Your task to perform on an android device: Clear the cart on walmart.com. Add "alienware aurora" to the cart on walmart.com, then select checkout. Image 0: 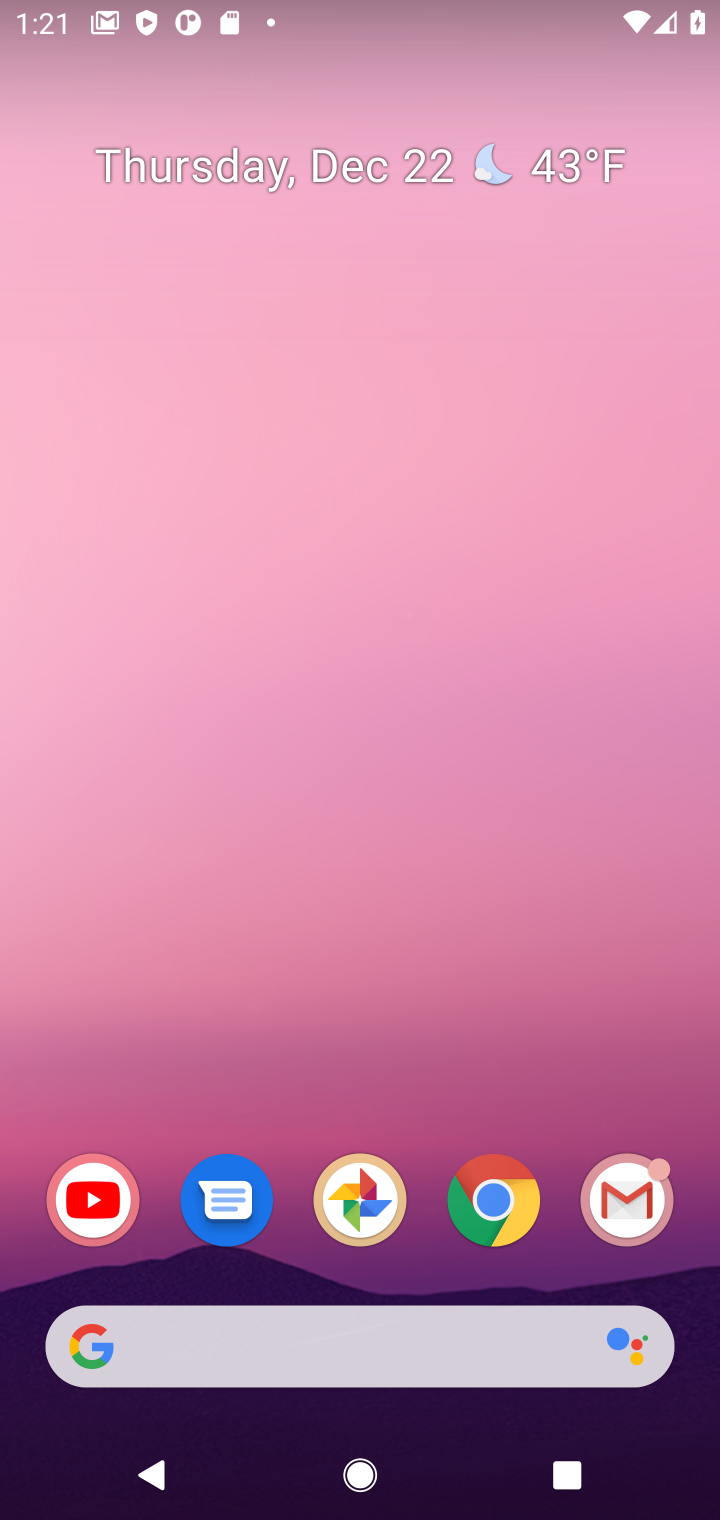
Step 0: click (499, 1216)
Your task to perform on an android device: Clear the cart on walmart.com. Add "alienware aurora" to the cart on walmart.com, then select checkout. Image 1: 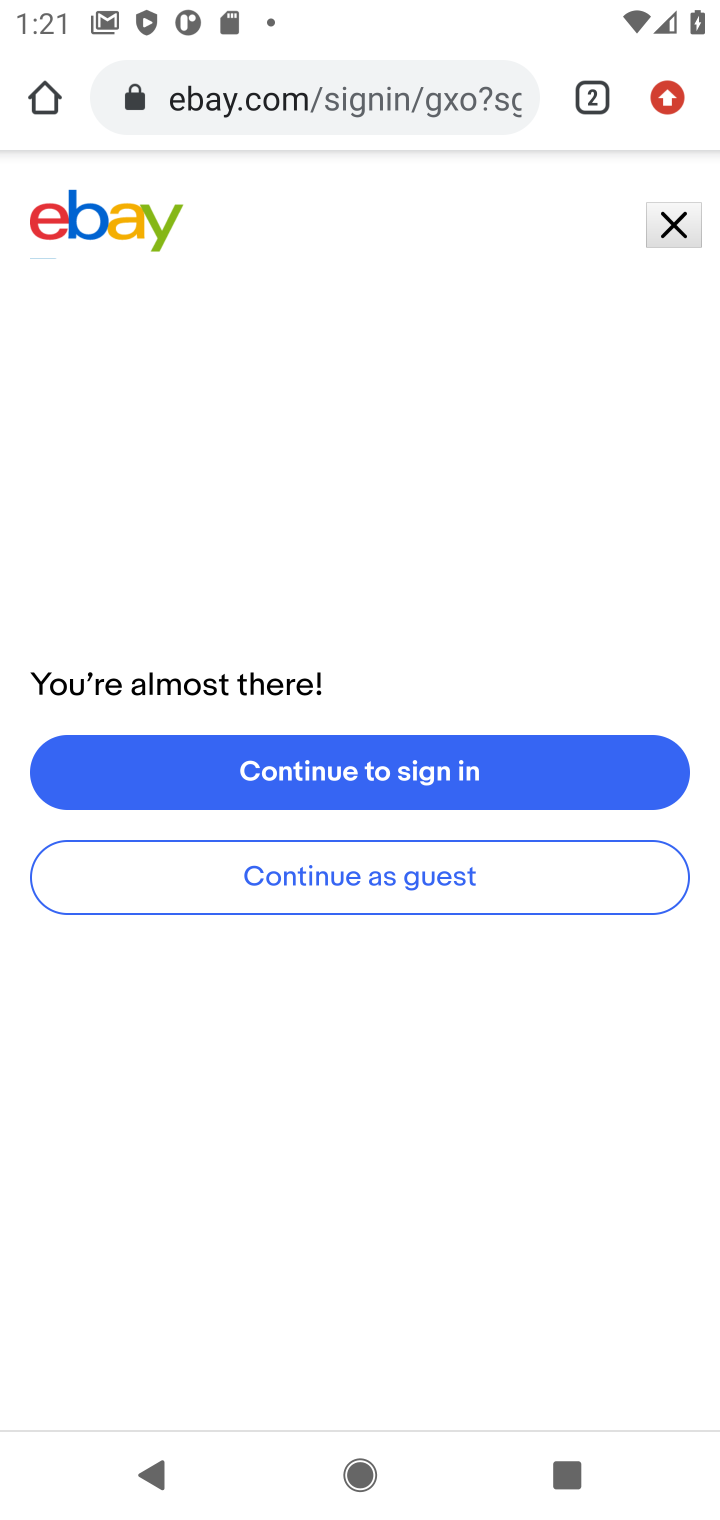
Step 1: click (243, 97)
Your task to perform on an android device: Clear the cart on walmart.com. Add "alienware aurora" to the cart on walmart.com, then select checkout. Image 2: 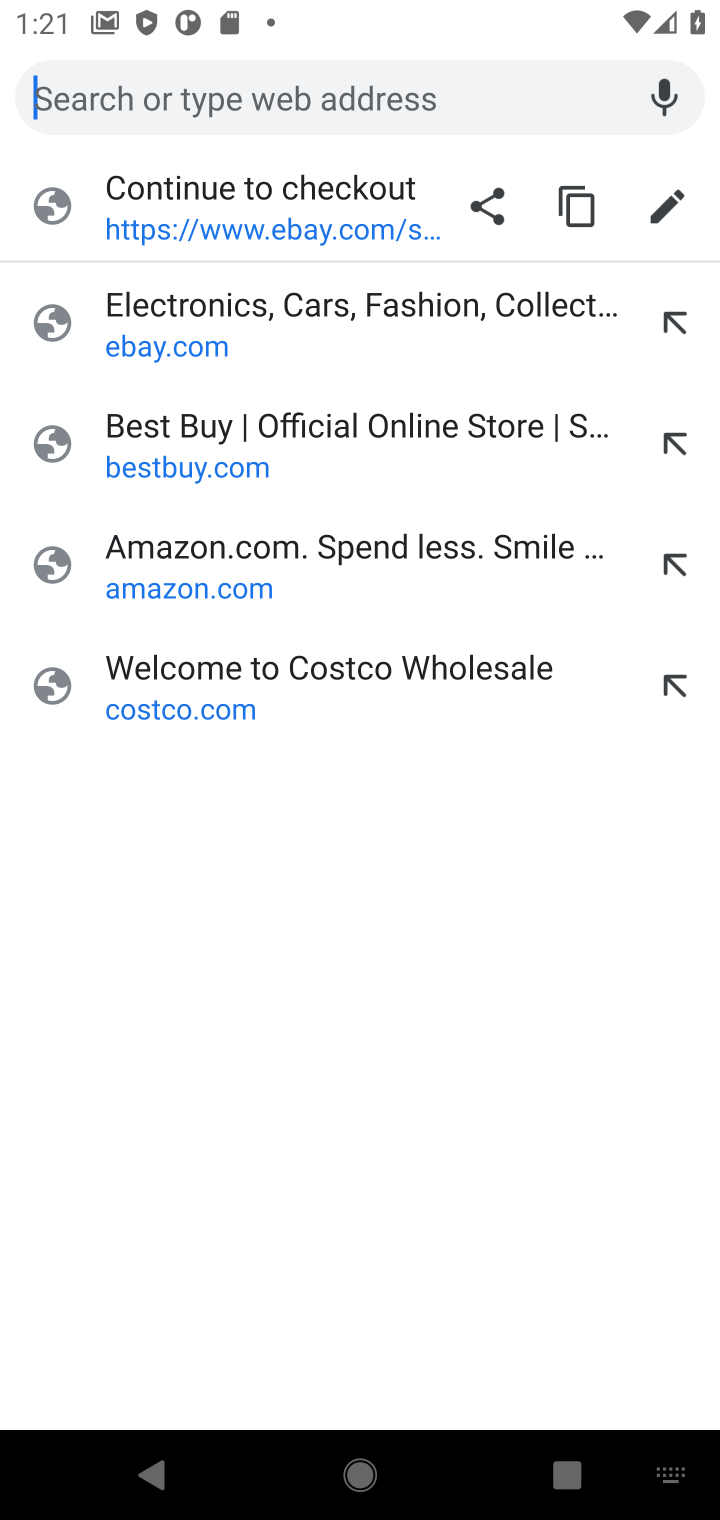
Step 2: type "walmart.com"
Your task to perform on an android device: Clear the cart on walmart.com. Add "alienware aurora" to the cart on walmart.com, then select checkout. Image 3: 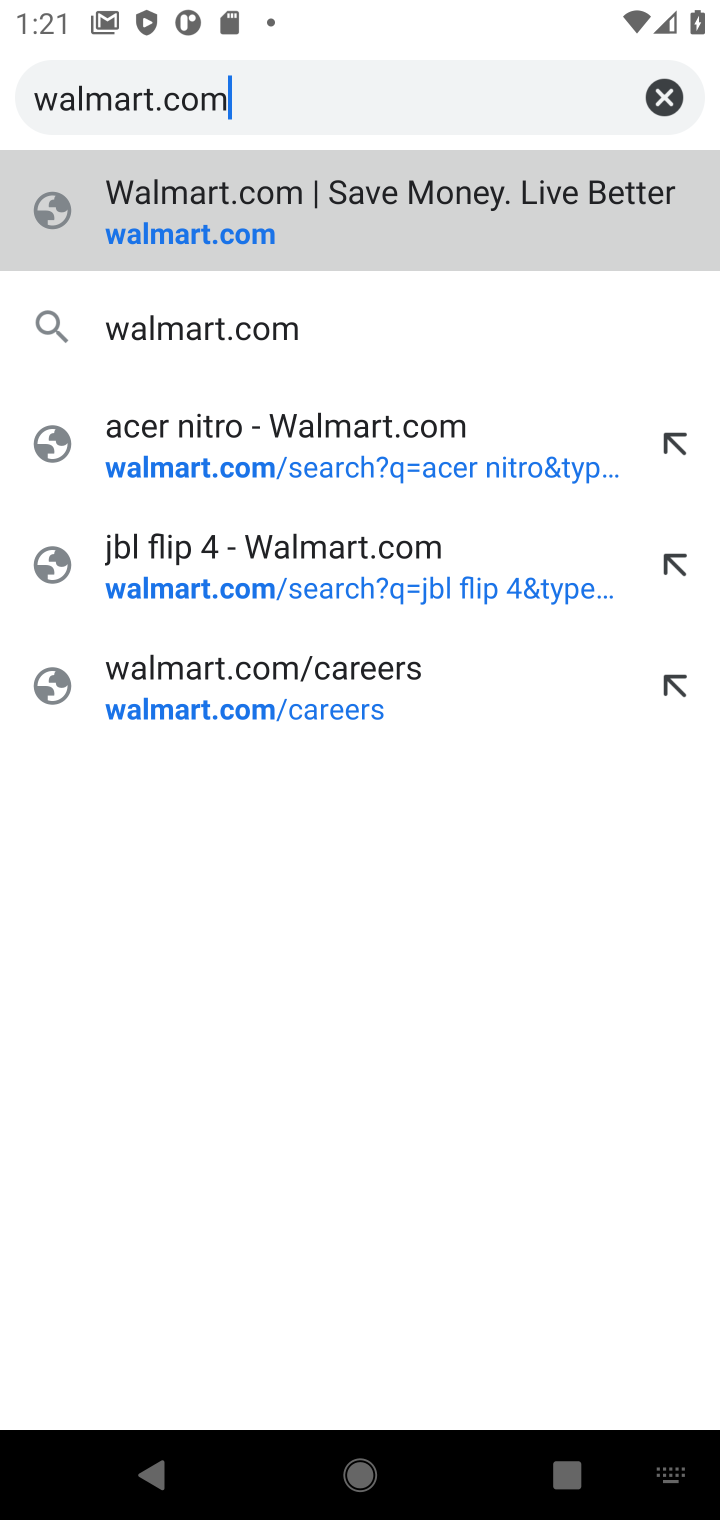
Step 3: click (171, 237)
Your task to perform on an android device: Clear the cart on walmart.com. Add "alienware aurora" to the cart on walmart.com, then select checkout. Image 4: 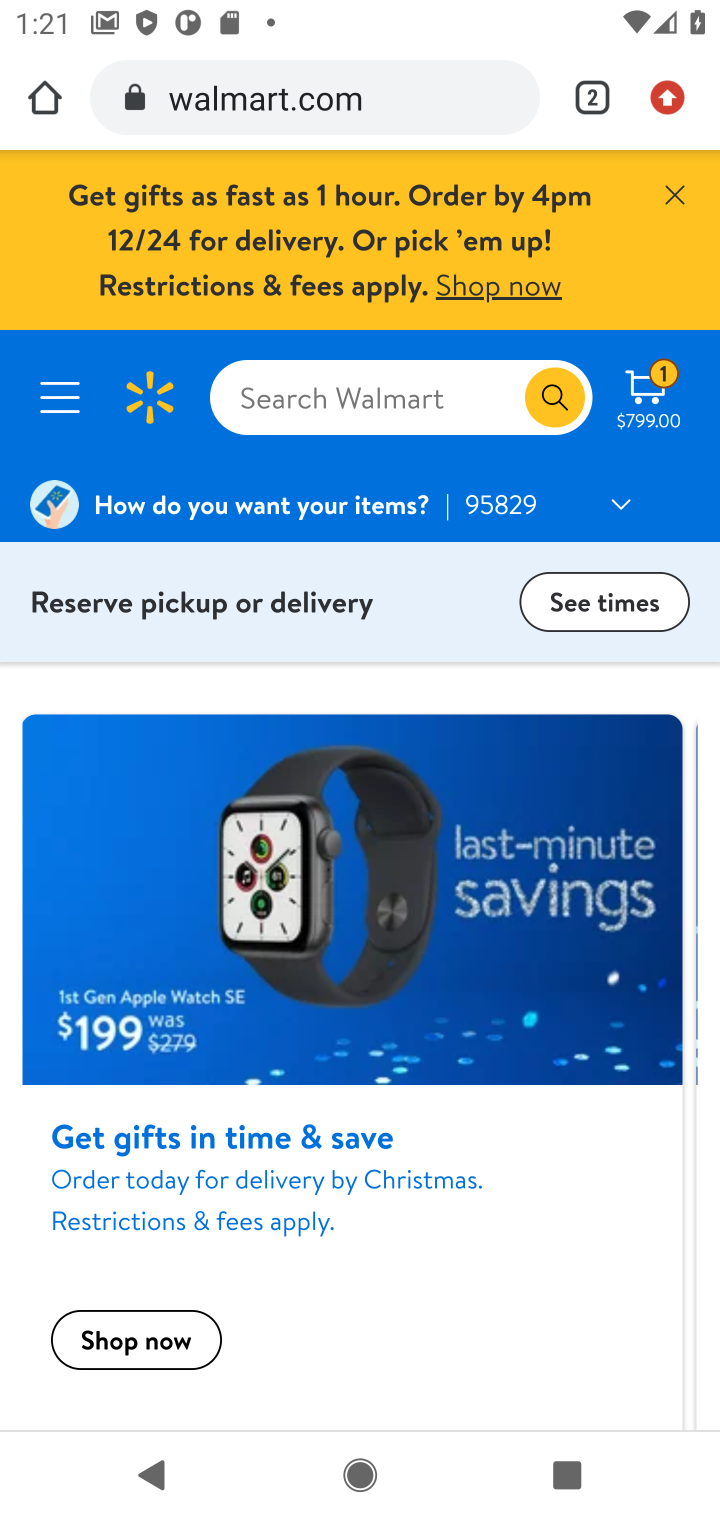
Step 4: click (641, 404)
Your task to perform on an android device: Clear the cart on walmart.com. Add "alienware aurora" to the cart on walmart.com, then select checkout. Image 5: 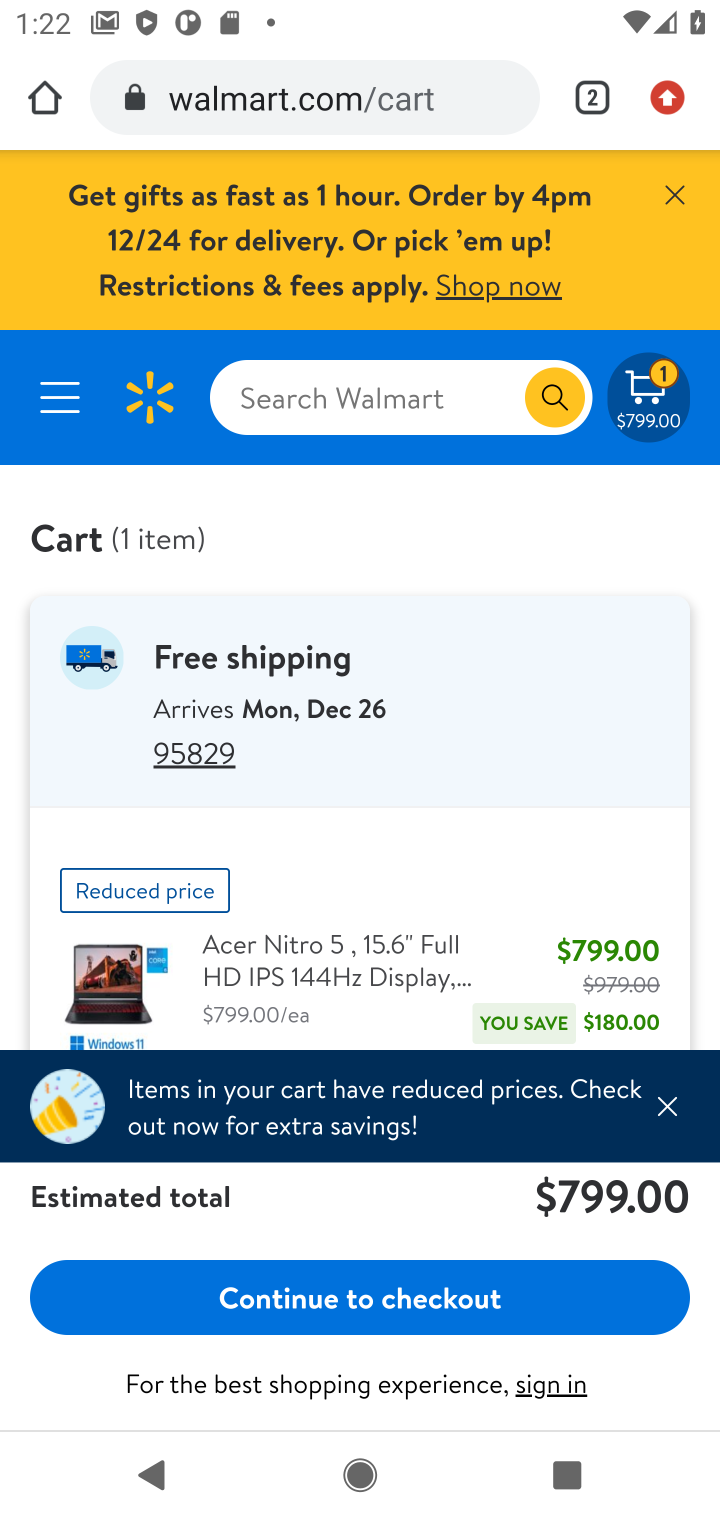
Step 5: drag from (324, 908) to (333, 403)
Your task to perform on an android device: Clear the cart on walmart.com. Add "alienware aurora" to the cart on walmart.com, then select checkout. Image 6: 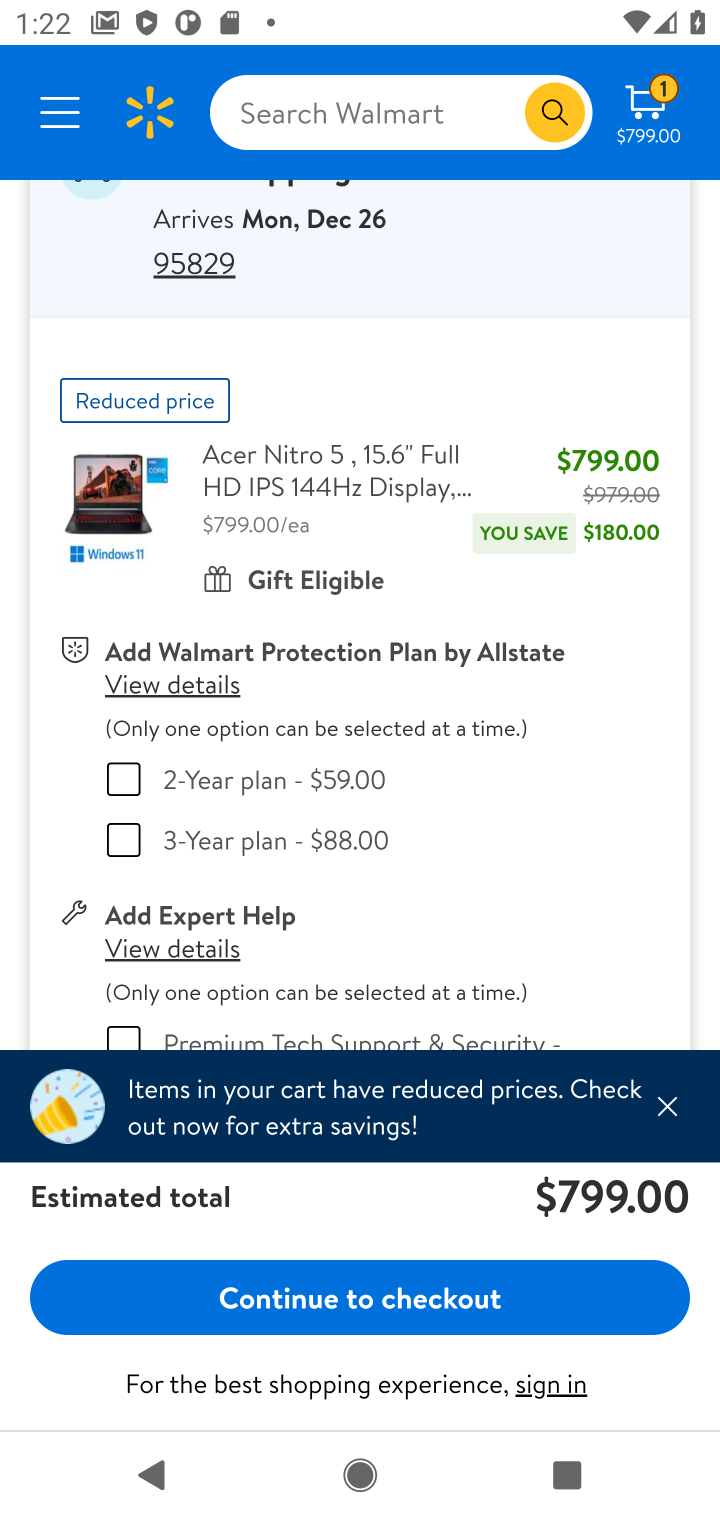
Step 6: drag from (323, 613) to (323, 316)
Your task to perform on an android device: Clear the cart on walmart.com. Add "alienware aurora" to the cart on walmart.com, then select checkout. Image 7: 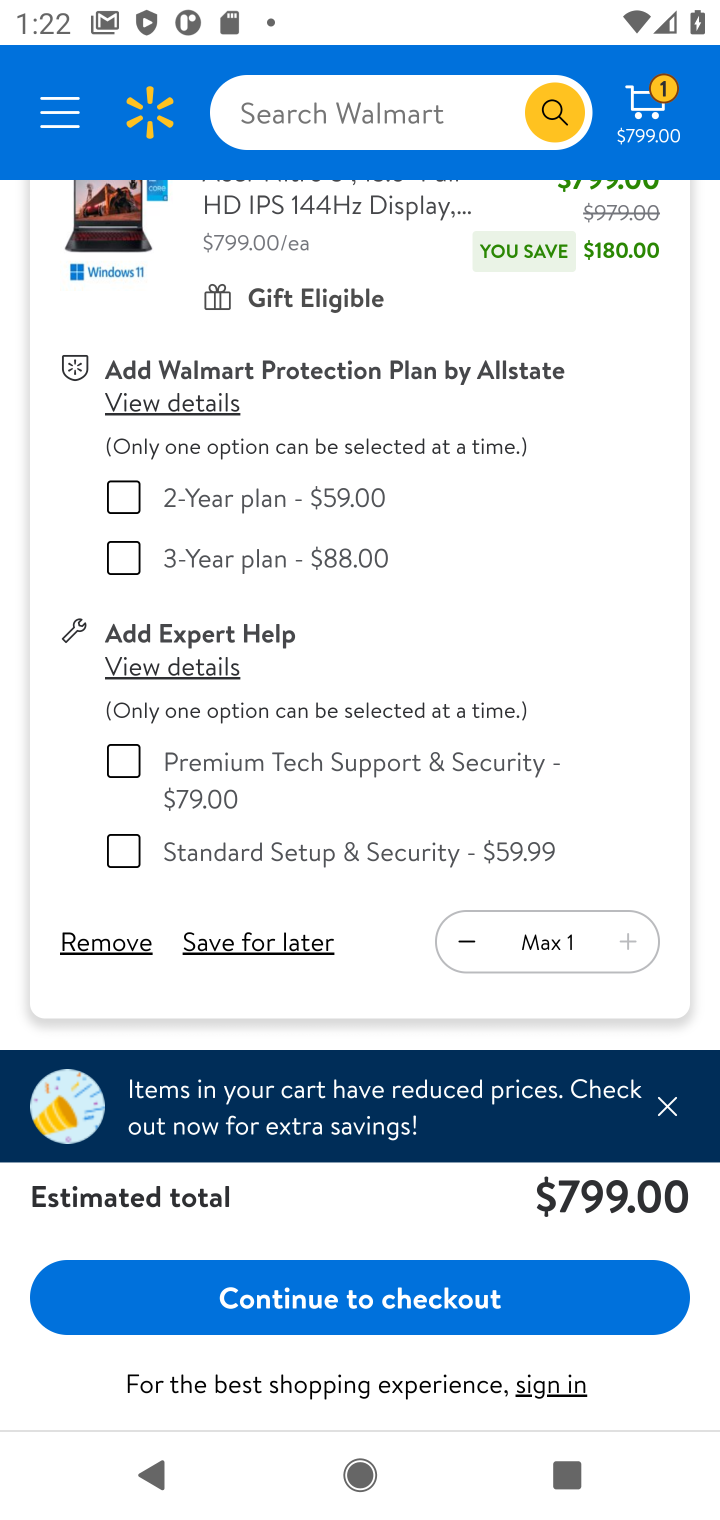
Step 7: click (91, 949)
Your task to perform on an android device: Clear the cart on walmart.com. Add "alienware aurora" to the cart on walmart.com, then select checkout. Image 8: 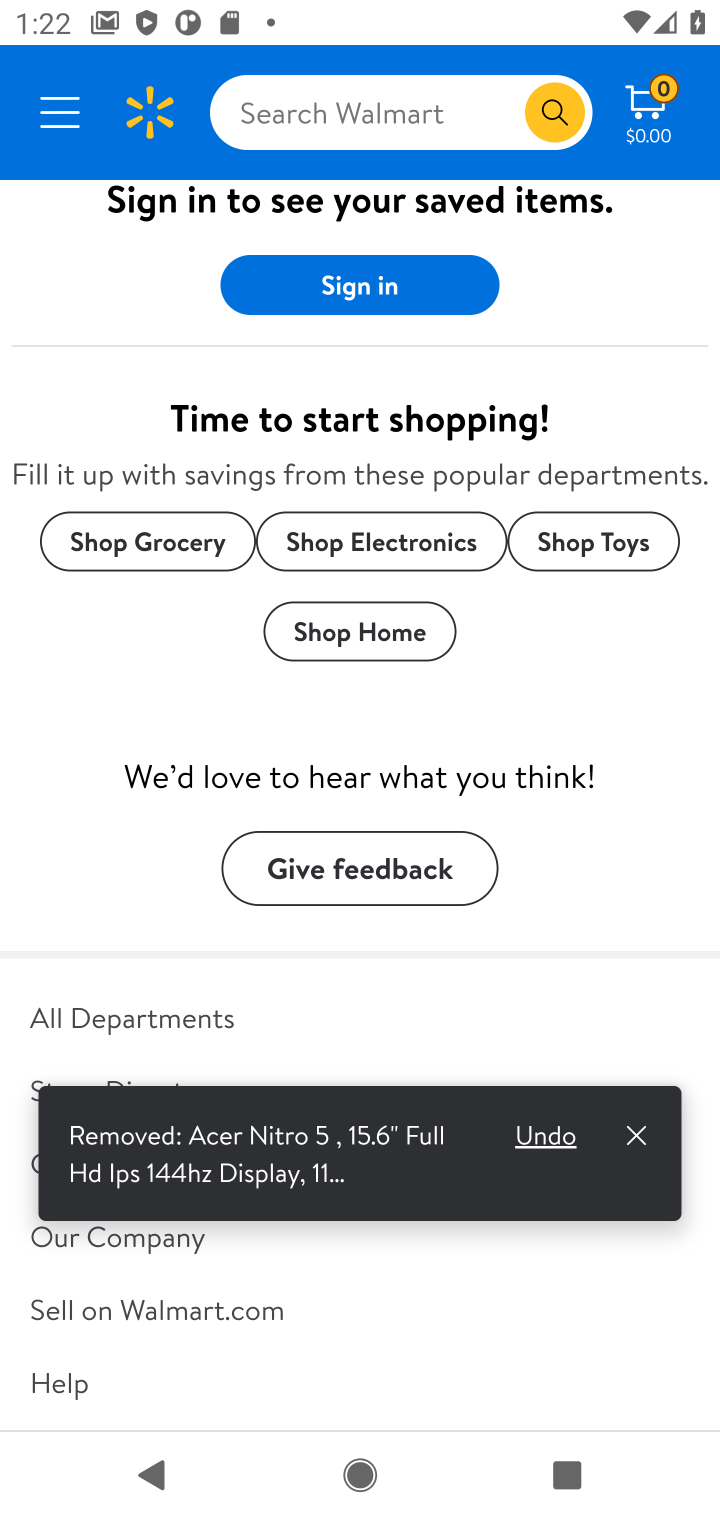
Step 8: drag from (343, 454) to (311, 964)
Your task to perform on an android device: Clear the cart on walmart.com. Add "alienware aurora" to the cart on walmart.com, then select checkout. Image 9: 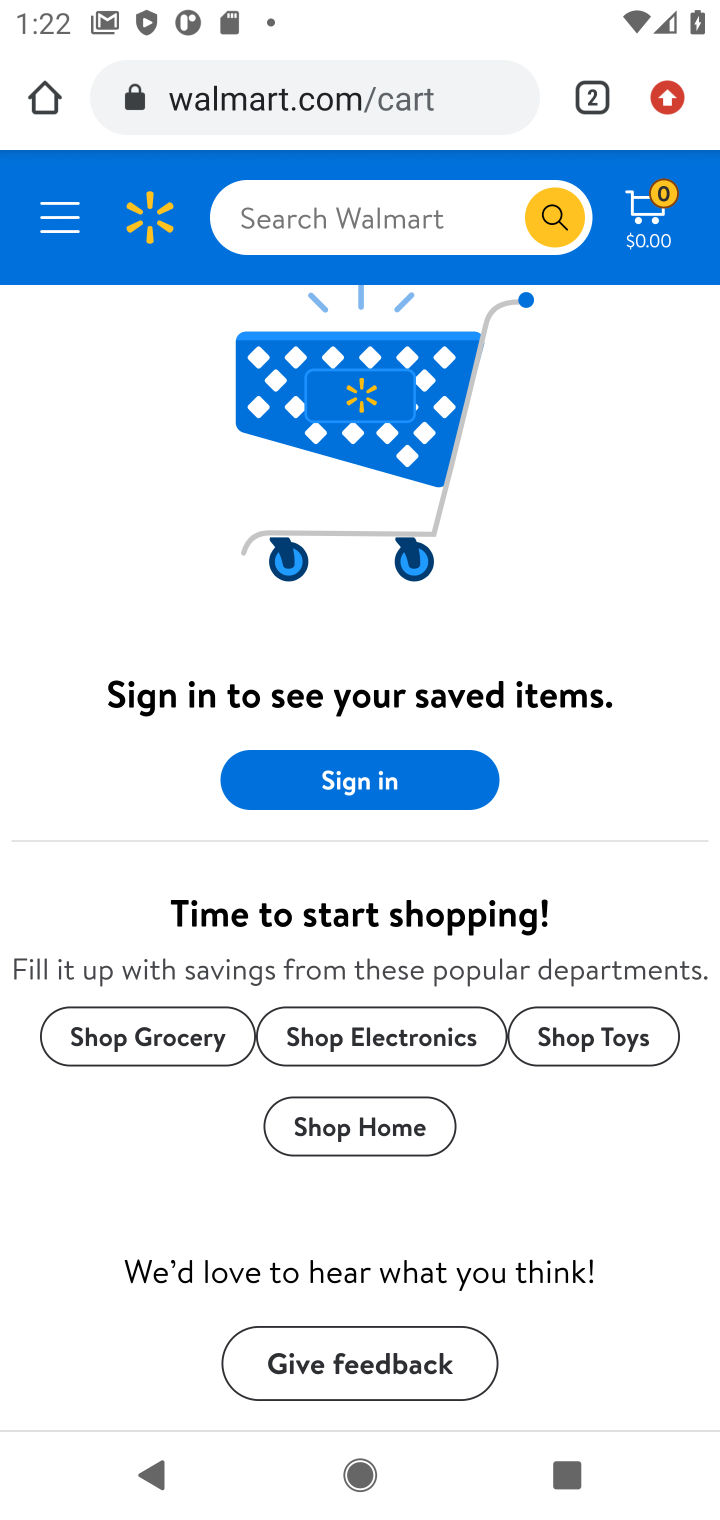
Step 9: click (291, 218)
Your task to perform on an android device: Clear the cart on walmart.com. Add "alienware aurora" to the cart on walmart.com, then select checkout. Image 10: 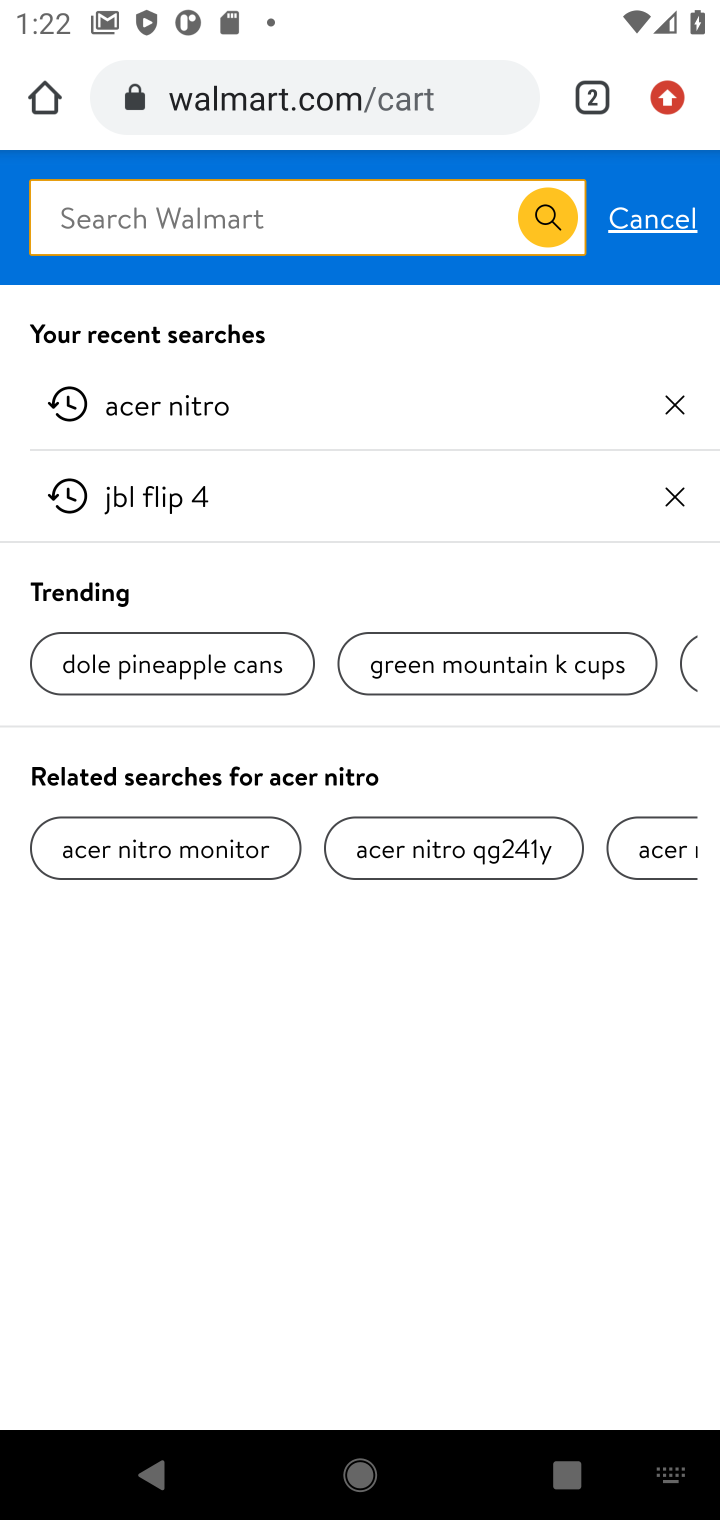
Step 10: type "alienware aurora"
Your task to perform on an android device: Clear the cart on walmart.com. Add "alienware aurora" to the cart on walmart.com, then select checkout. Image 11: 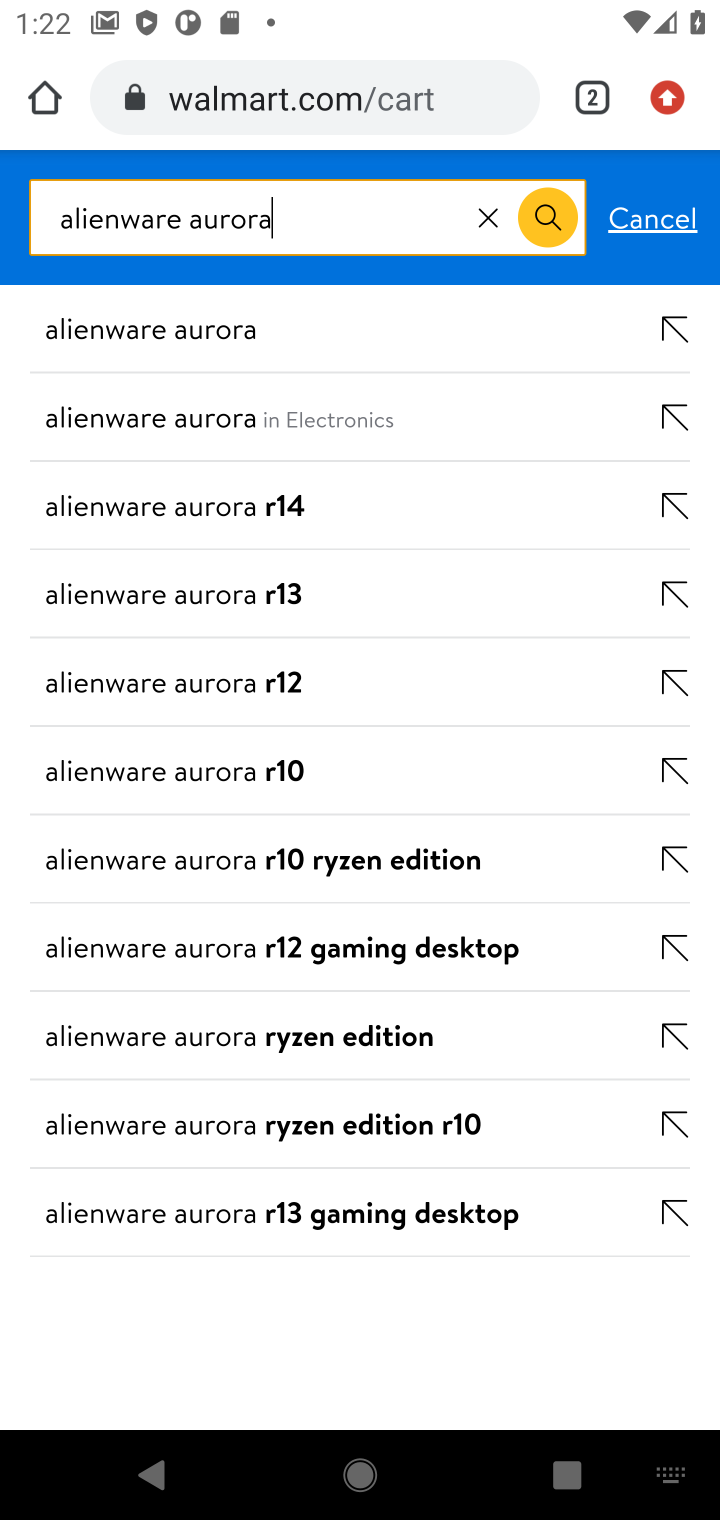
Step 11: click (153, 346)
Your task to perform on an android device: Clear the cart on walmart.com. Add "alienware aurora" to the cart on walmart.com, then select checkout. Image 12: 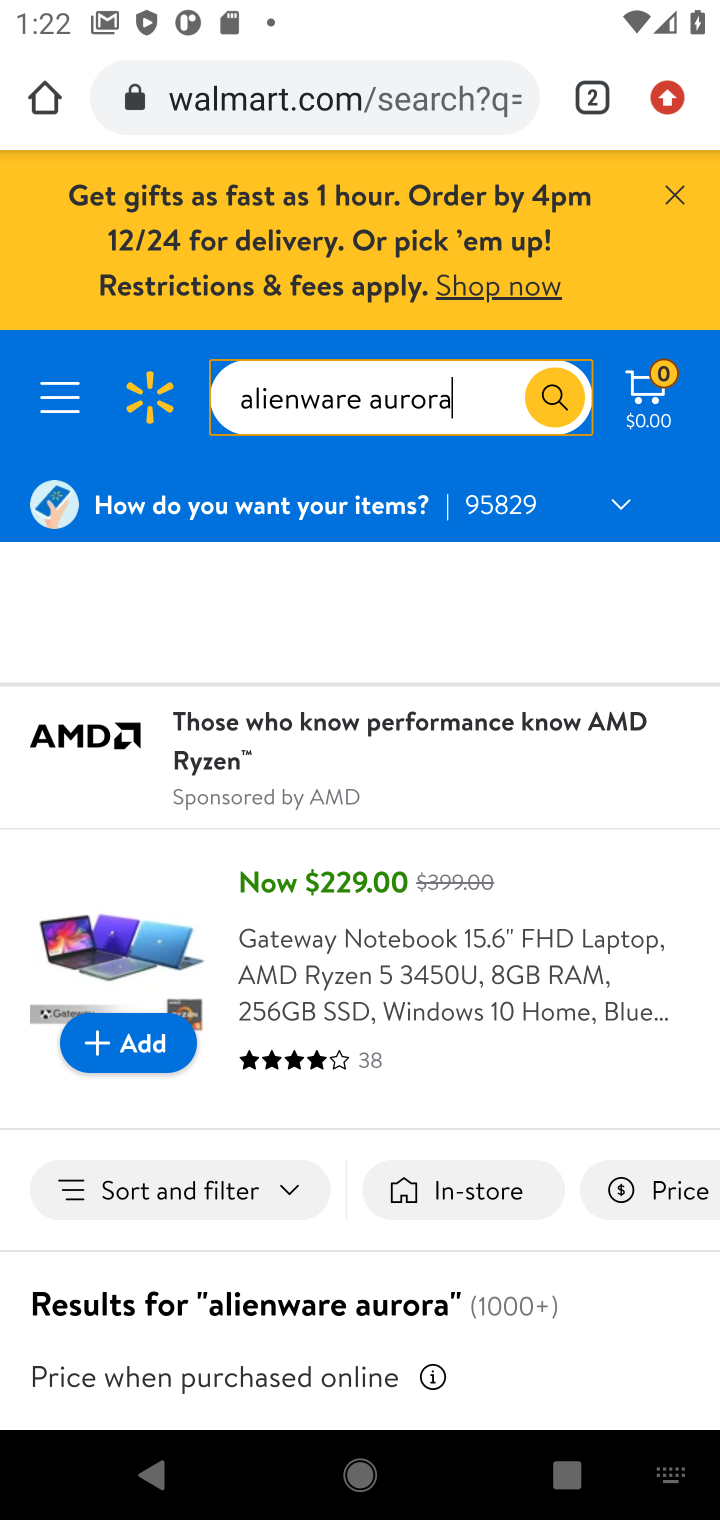
Step 12: drag from (295, 1062) to (294, 635)
Your task to perform on an android device: Clear the cart on walmart.com. Add "alienware aurora" to the cart on walmart.com, then select checkout. Image 13: 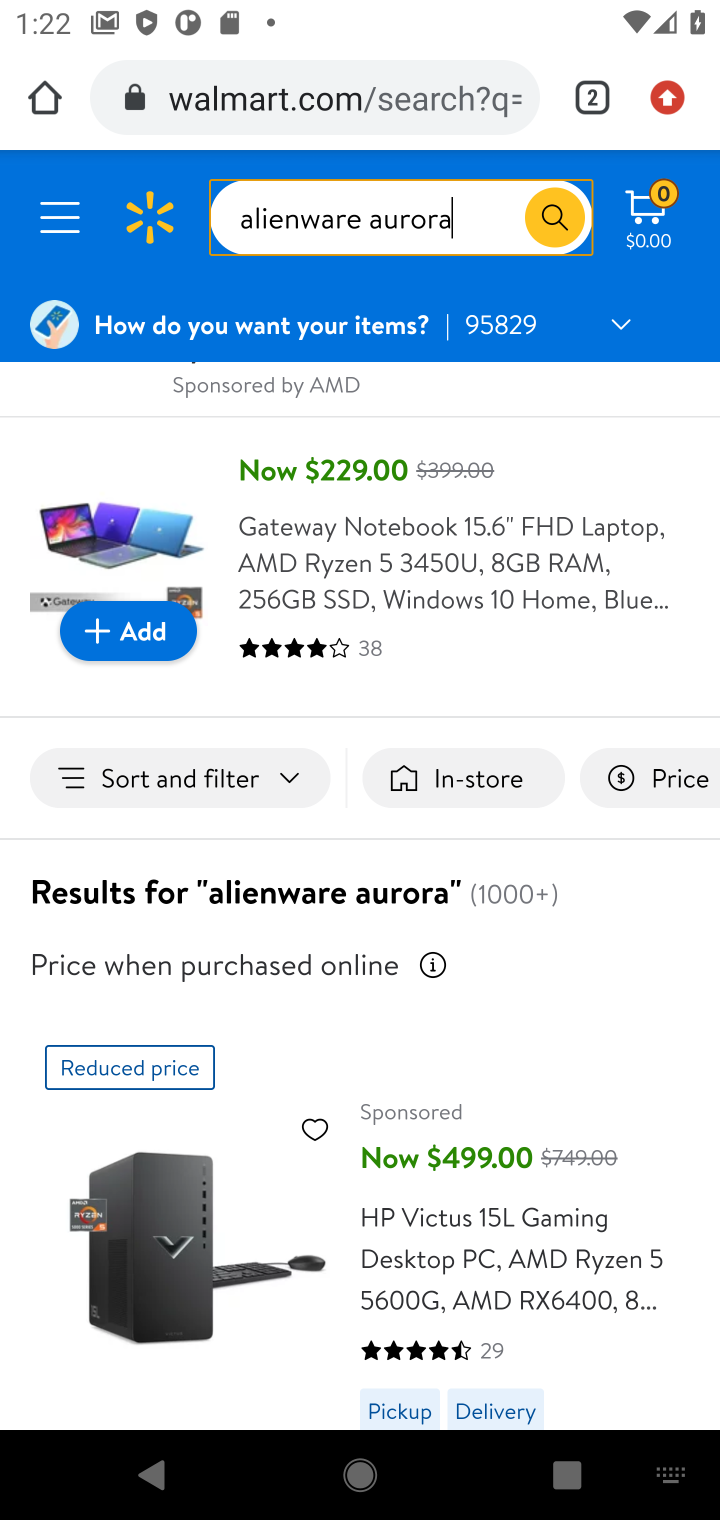
Step 13: drag from (239, 1042) to (273, 565)
Your task to perform on an android device: Clear the cart on walmart.com. Add "alienware aurora" to the cart on walmart.com, then select checkout. Image 14: 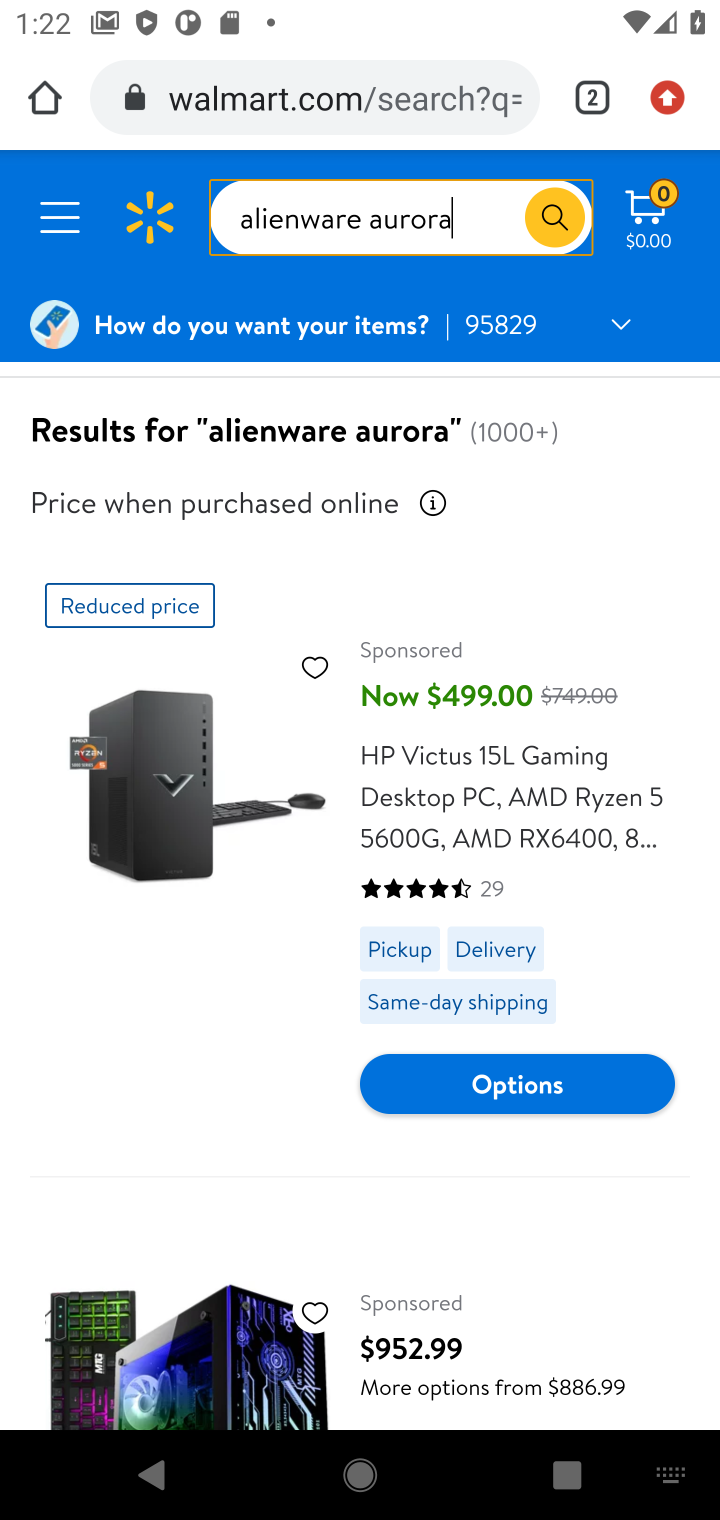
Step 14: drag from (296, 1009) to (298, 523)
Your task to perform on an android device: Clear the cart on walmart.com. Add "alienware aurora" to the cart on walmart.com, then select checkout. Image 15: 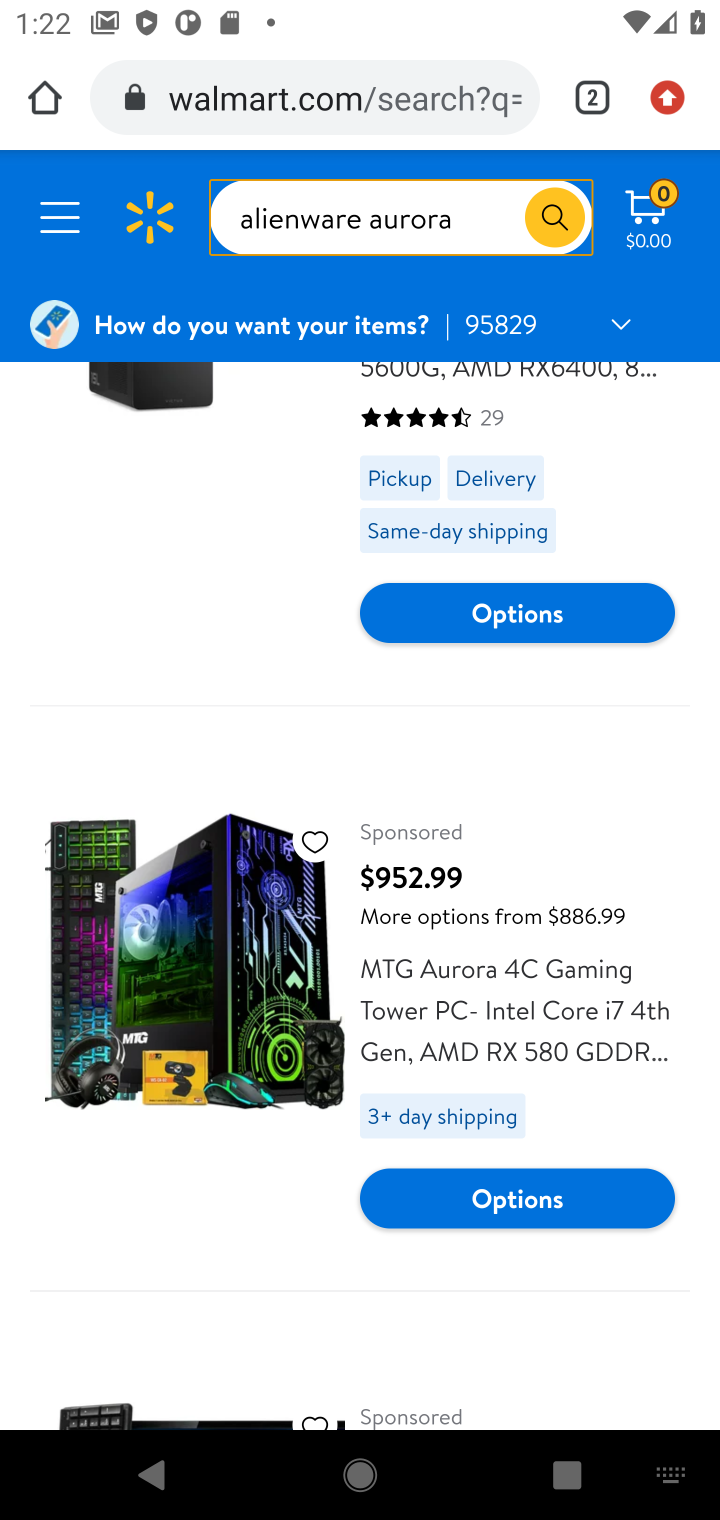
Step 15: drag from (284, 971) to (304, 570)
Your task to perform on an android device: Clear the cart on walmart.com. Add "alienware aurora" to the cart on walmart.com, then select checkout. Image 16: 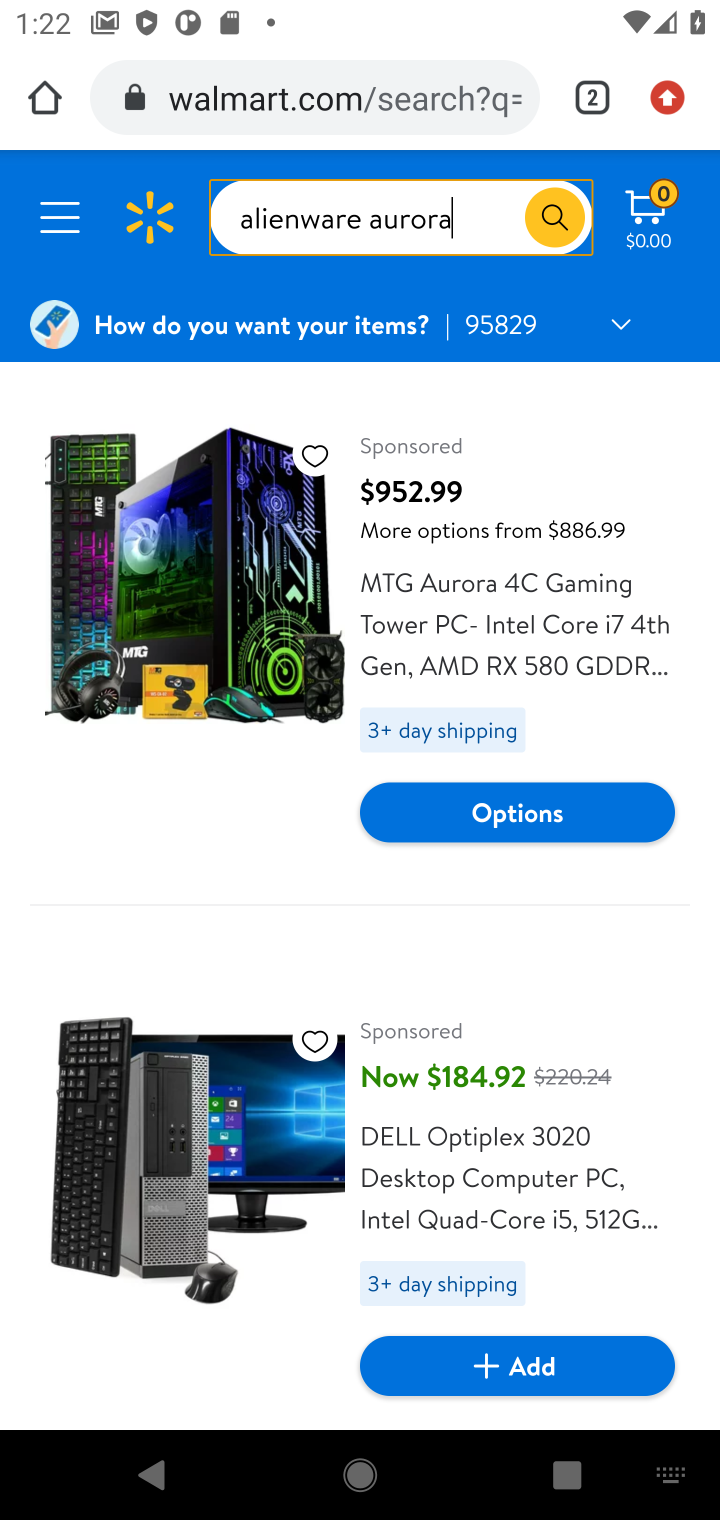
Step 16: drag from (277, 940) to (301, 490)
Your task to perform on an android device: Clear the cart on walmart.com. Add "alienware aurora" to the cart on walmart.com, then select checkout. Image 17: 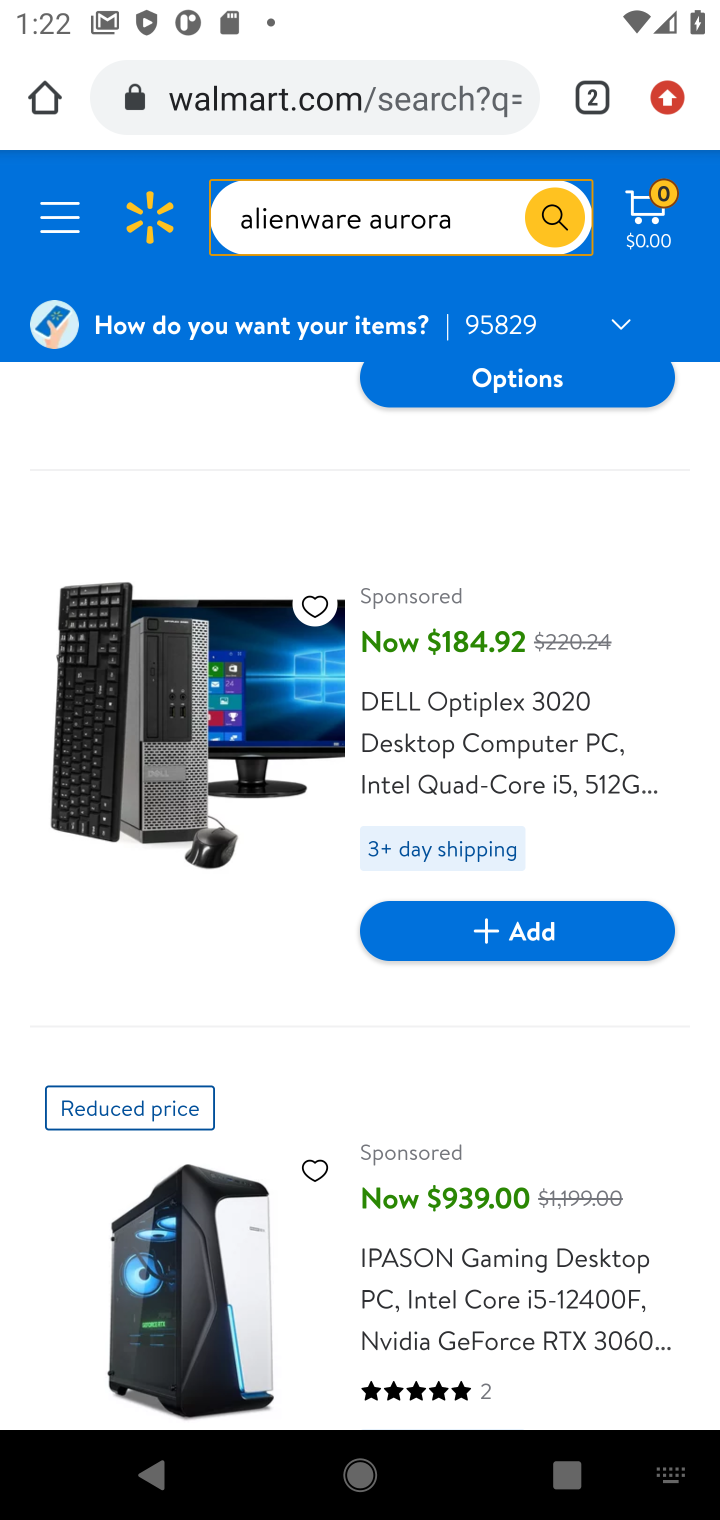
Step 17: drag from (216, 1110) to (252, 523)
Your task to perform on an android device: Clear the cart on walmart.com. Add "alienware aurora" to the cart on walmart.com, then select checkout. Image 18: 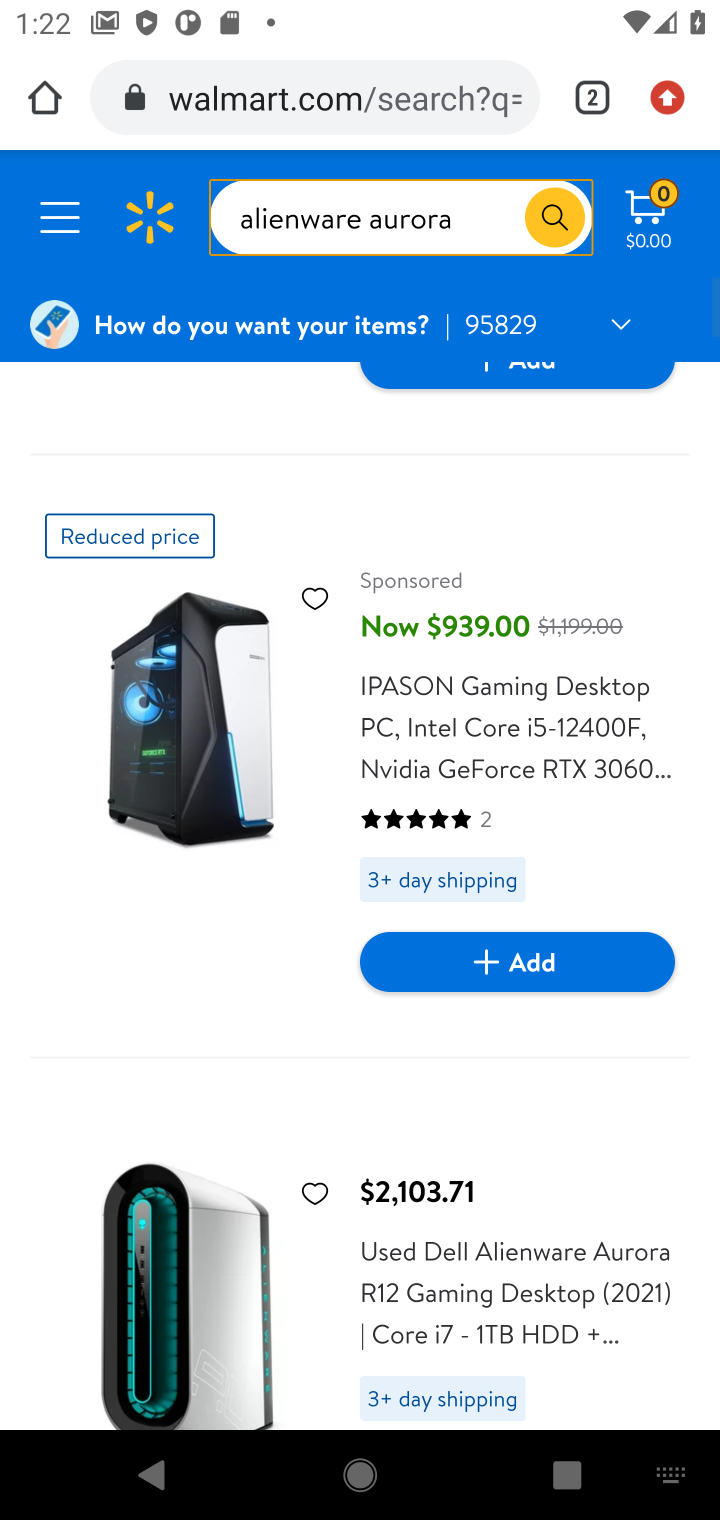
Step 18: drag from (216, 1088) to (216, 588)
Your task to perform on an android device: Clear the cart on walmart.com. Add "alienware aurora" to the cart on walmart.com, then select checkout. Image 19: 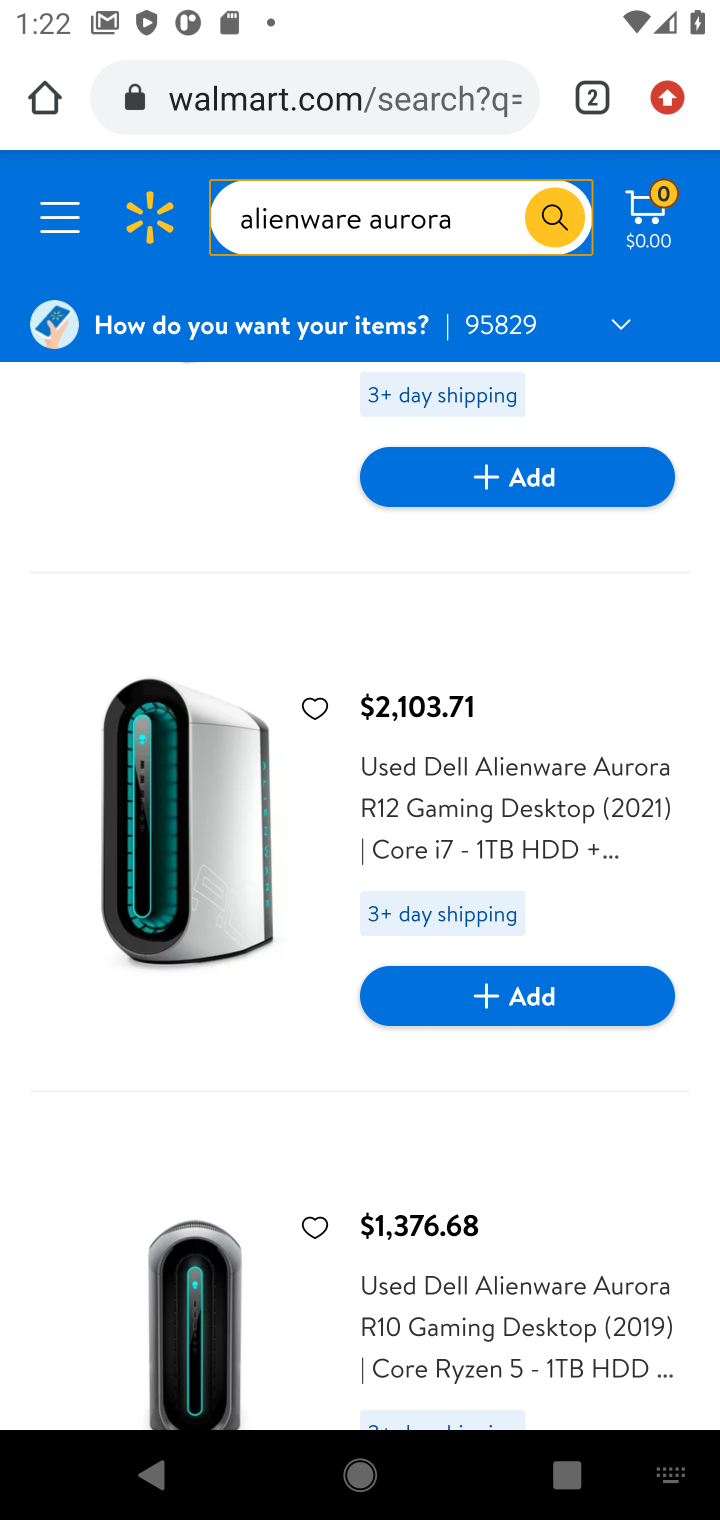
Step 19: click (496, 1006)
Your task to perform on an android device: Clear the cart on walmart.com. Add "alienware aurora" to the cart on walmart.com, then select checkout. Image 20: 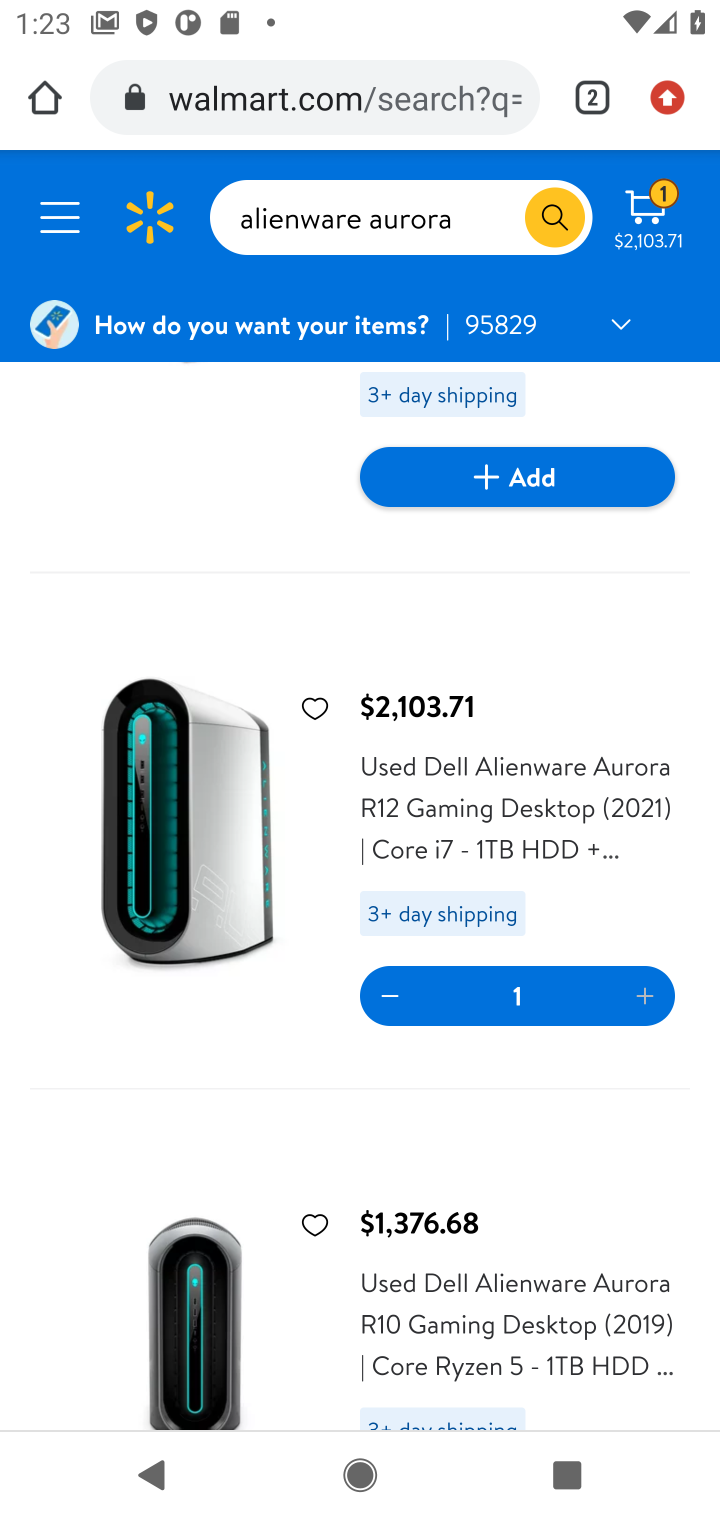
Step 20: click (646, 223)
Your task to perform on an android device: Clear the cart on walmart.com. Add "alienware aurora" to the cart on walmart.com, then select checkout. Image 21: 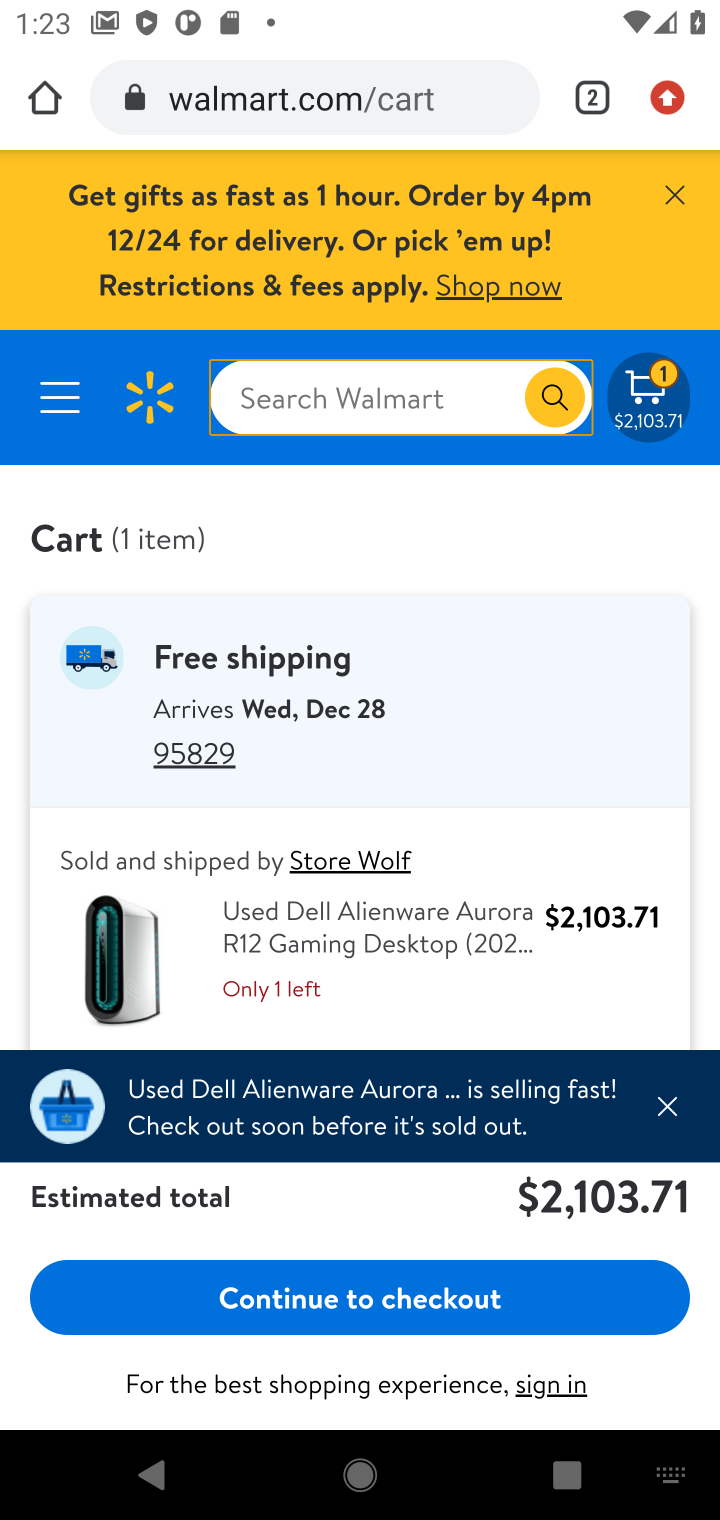
Step 21: click (331, 1312)
Your task to perform on an android device: Clear the cart on walmart.com. Add "alienware aurora" to the cart on walmart.com, then select checkout. Image 22: 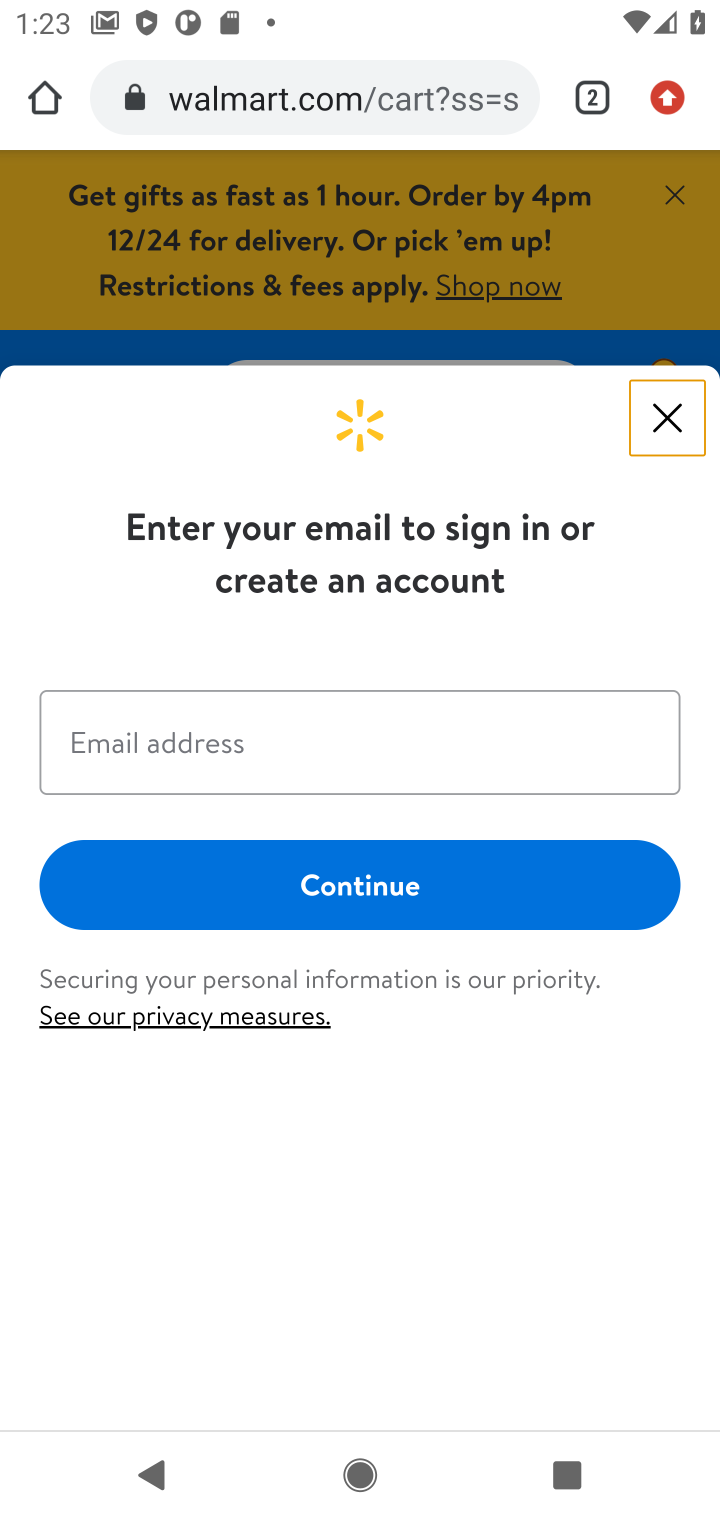
Step 22: task complete